Your task to perform on an android device: Open the phone app and click the voicemail tab. Image 0: 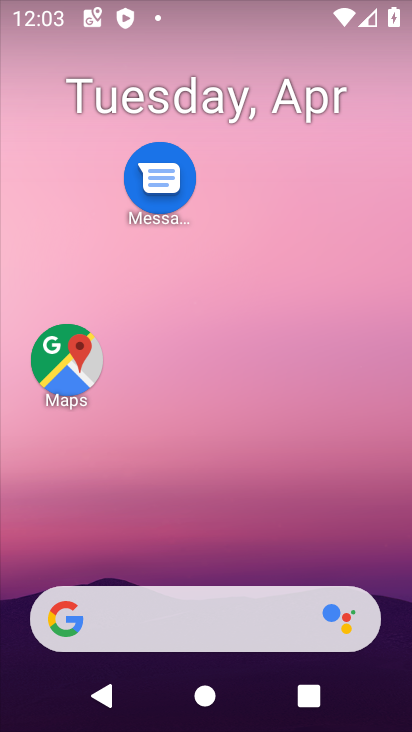
Step 0: drag from (204, 722) to (146, 111)
Your task to perform on an android device: Open the phone app and click the voicemail tab. Image 1: 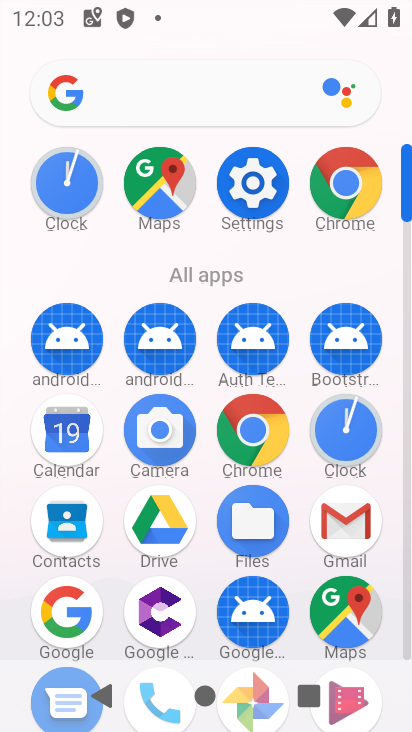
Step 1: drag from (200, 648) to (136, 175)
Your task to perform on an android device: Open the phone app and click the voicemail tab. Image 2: 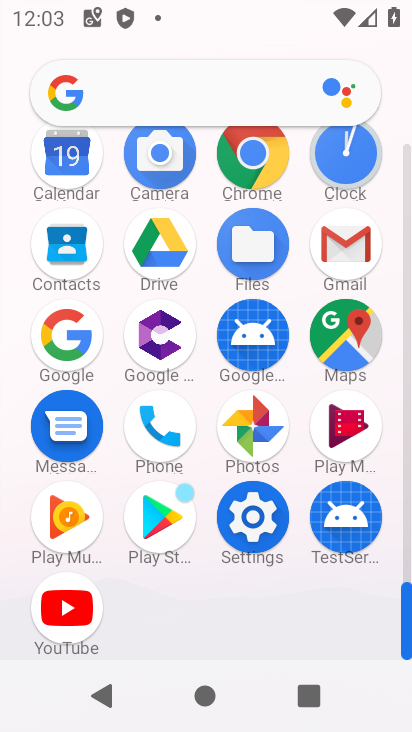
Step 2: click (153, 422)
Your task to perform on an android device: Open the phone app and click the voicemail tab. Image 3: 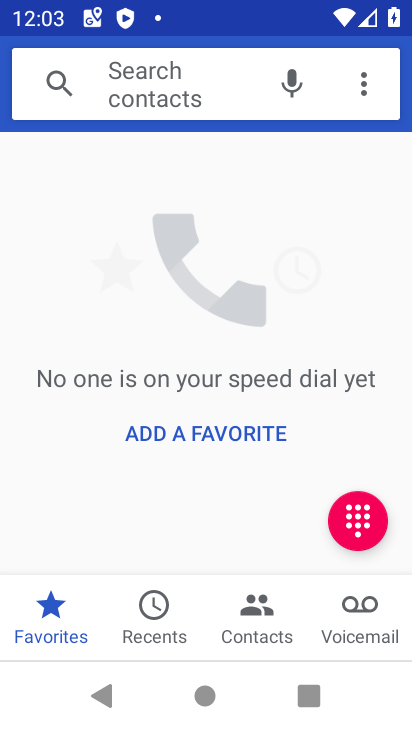
Step 3: click (352, 610)
Your task to perform on an android device: Open the phone app and click the voicemail tab. Image 4: 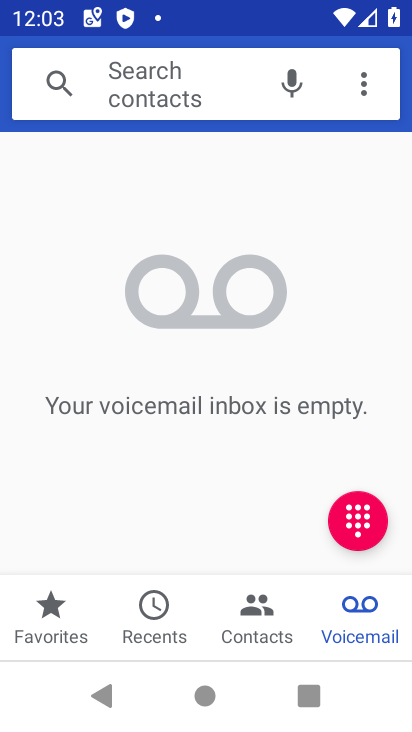
Step 4: task complete